Your task to perform on an android device: Open Youtube and go to "Your channel" Image 0: 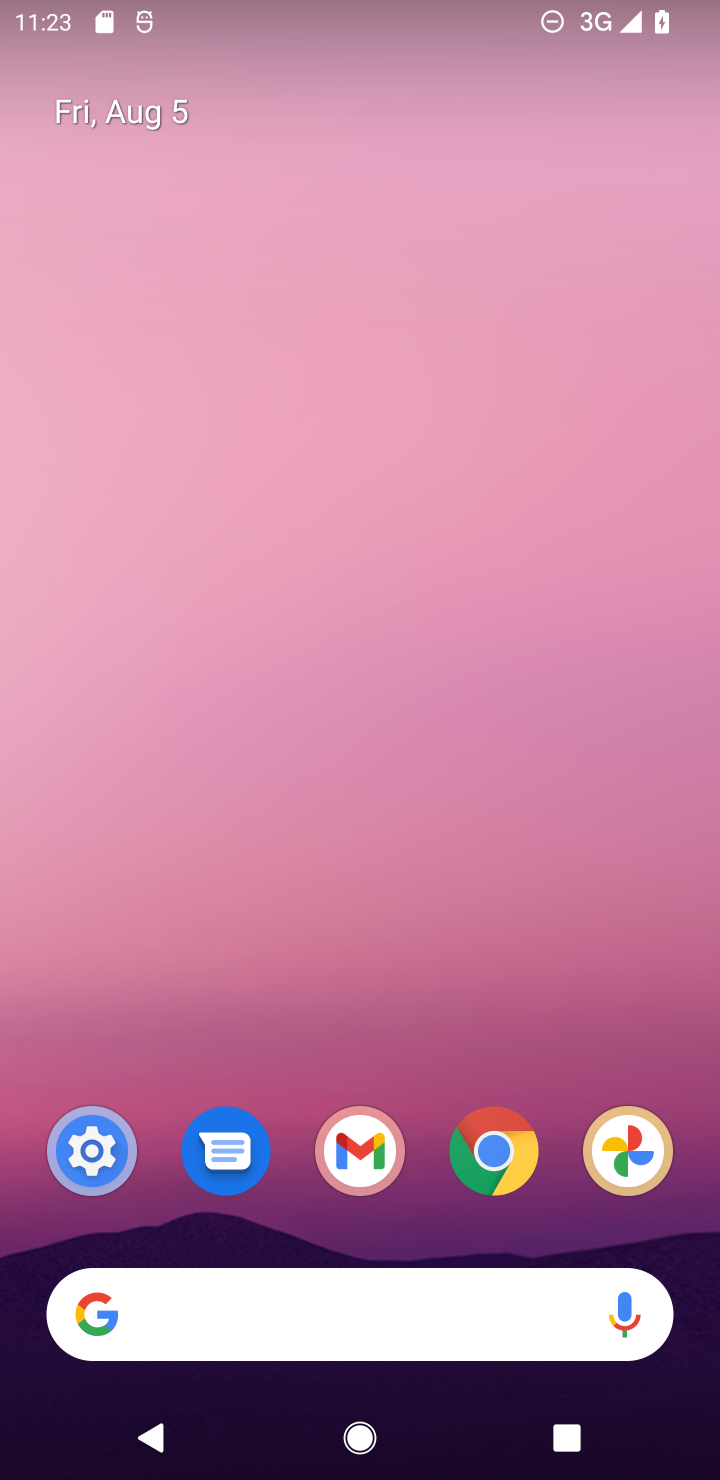
Step 0: click (264, 149)
Your task to perform on an android device: Open Youtube and go to "Your channel" Image 1: 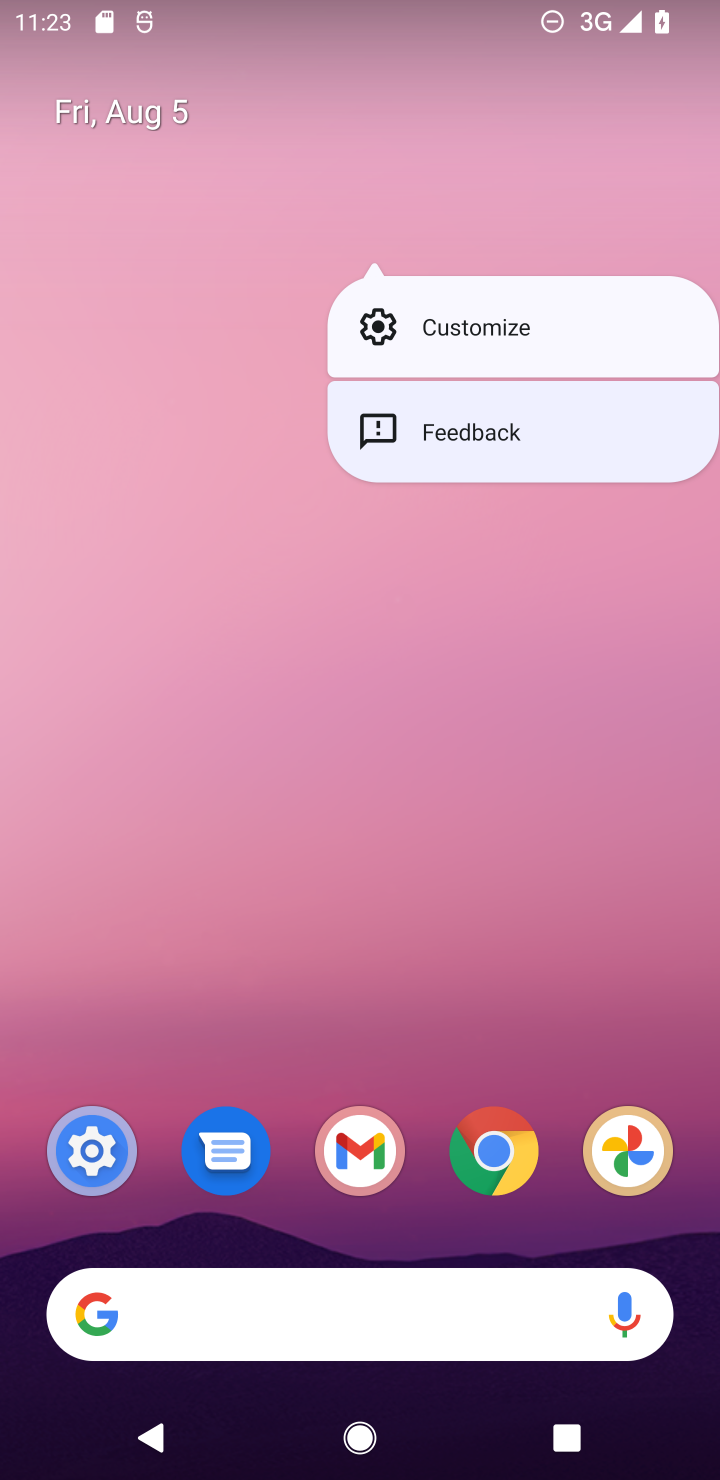
Step 1: click (336, 1227)
Your task to perform on an android device: Open Youtube and go to "Your channel" Image 2: 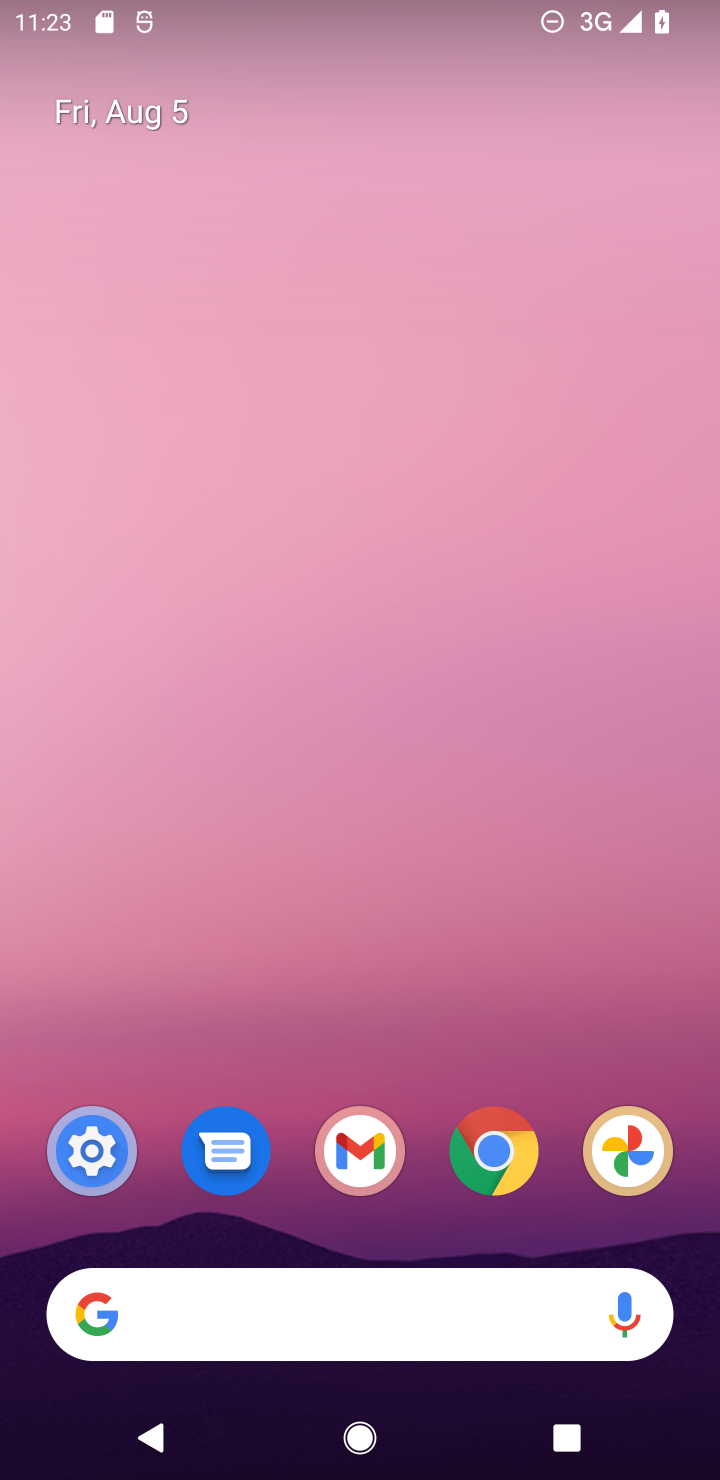
Step 2: drag from (327, 1126) to (272, 132)
Your task to perform on an android device: Open Youtube and go to "Your channel" Image 3: 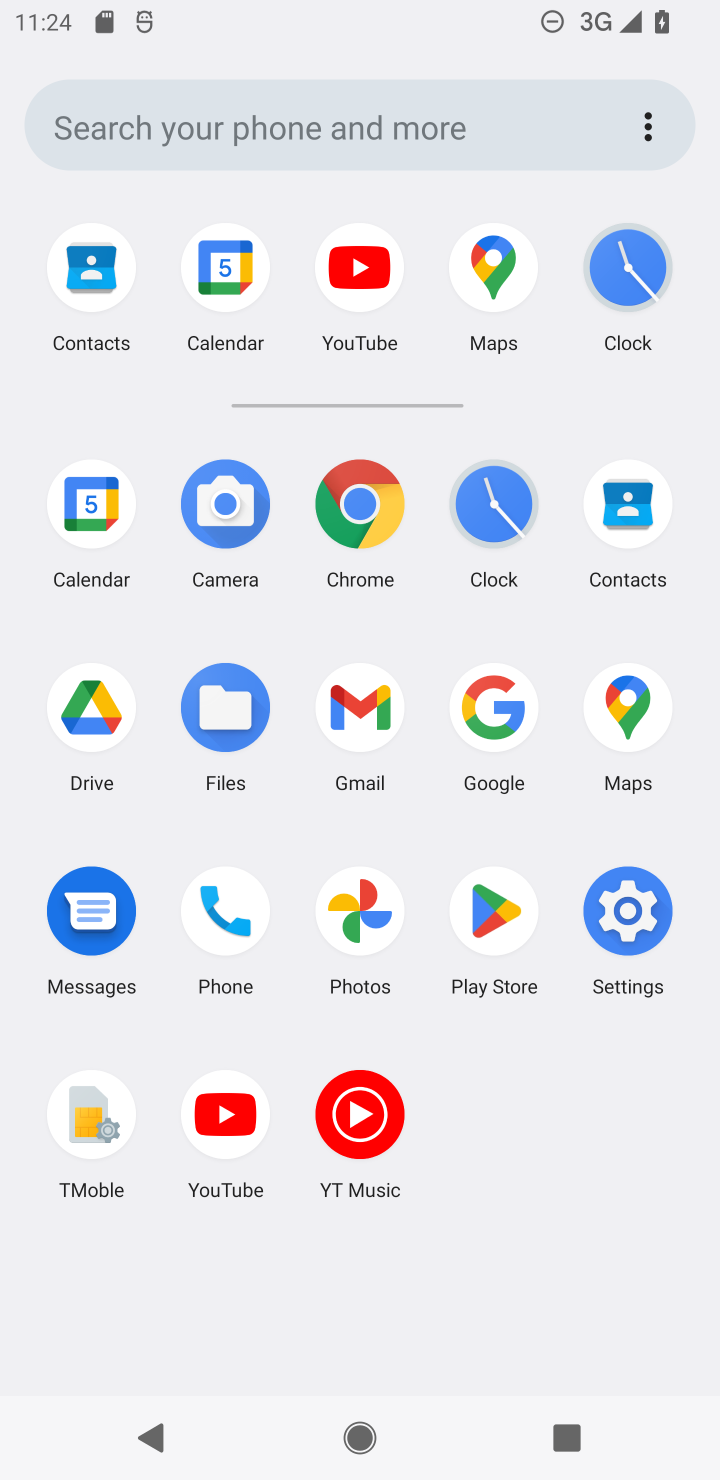
Step 3: click (346, 265)
Your task to perform on an android device: Open Youtube and go to "Your channel" Image 4: 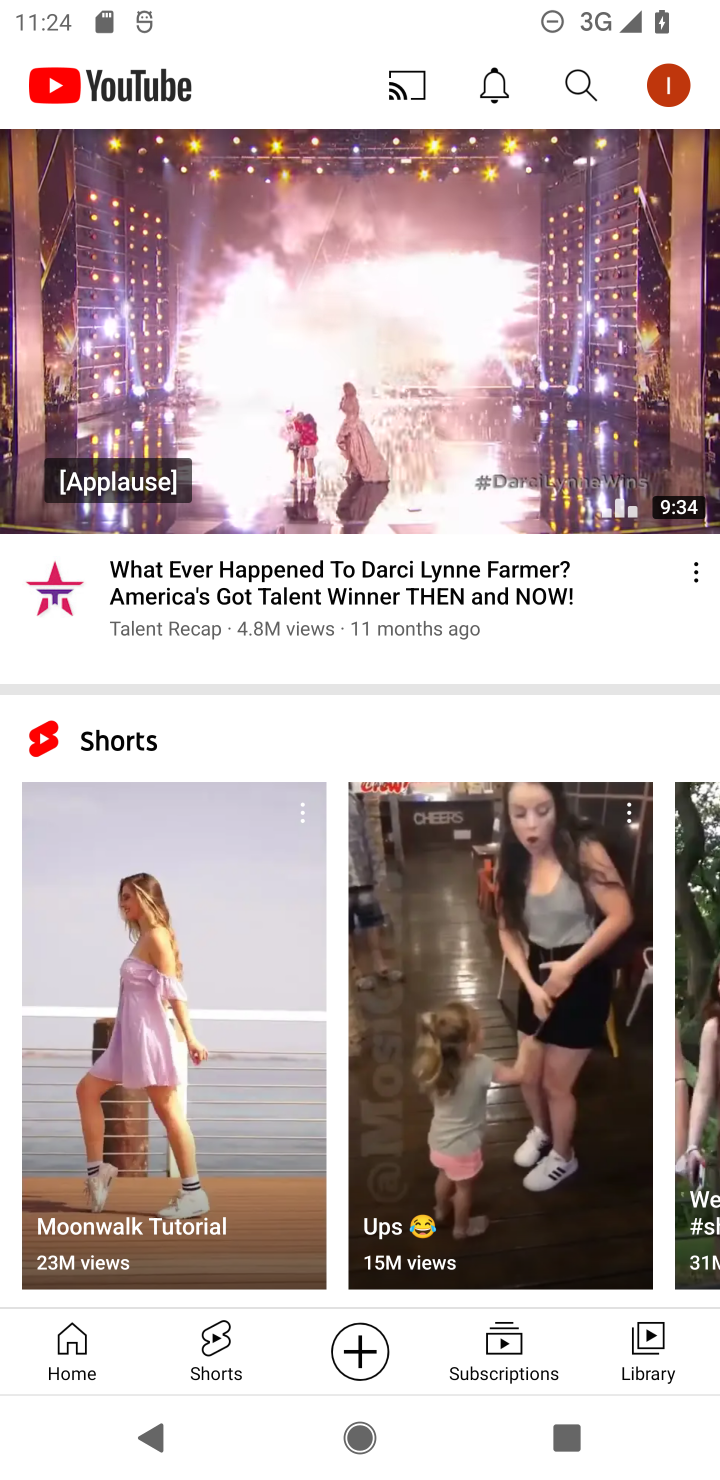
Step 4: click (664, 96)
Your task to perform on an android device: Open Youtube and go to "Your channel" Image 5: 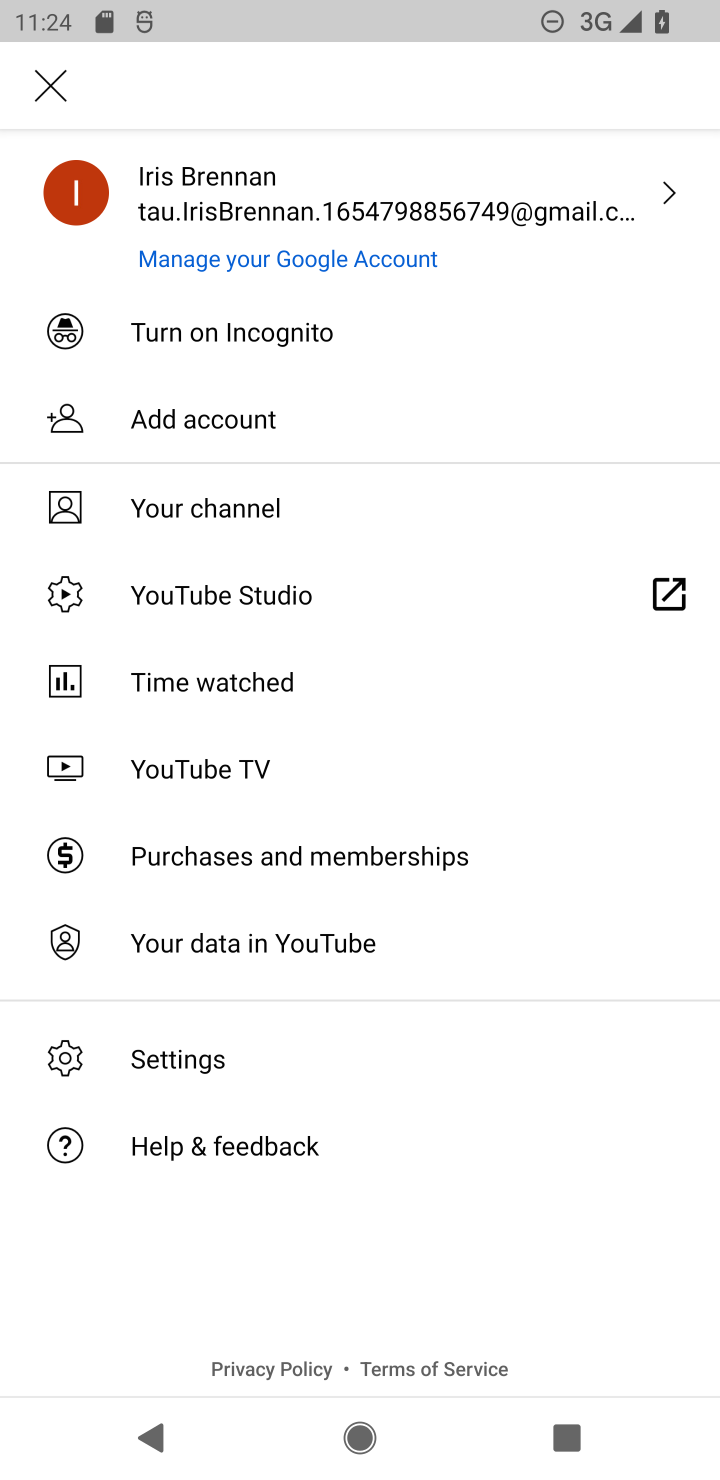
Step 5: click (92, 199)
Your task to perform on an android device: Open Youtube and go to "Your channel" Image 6: 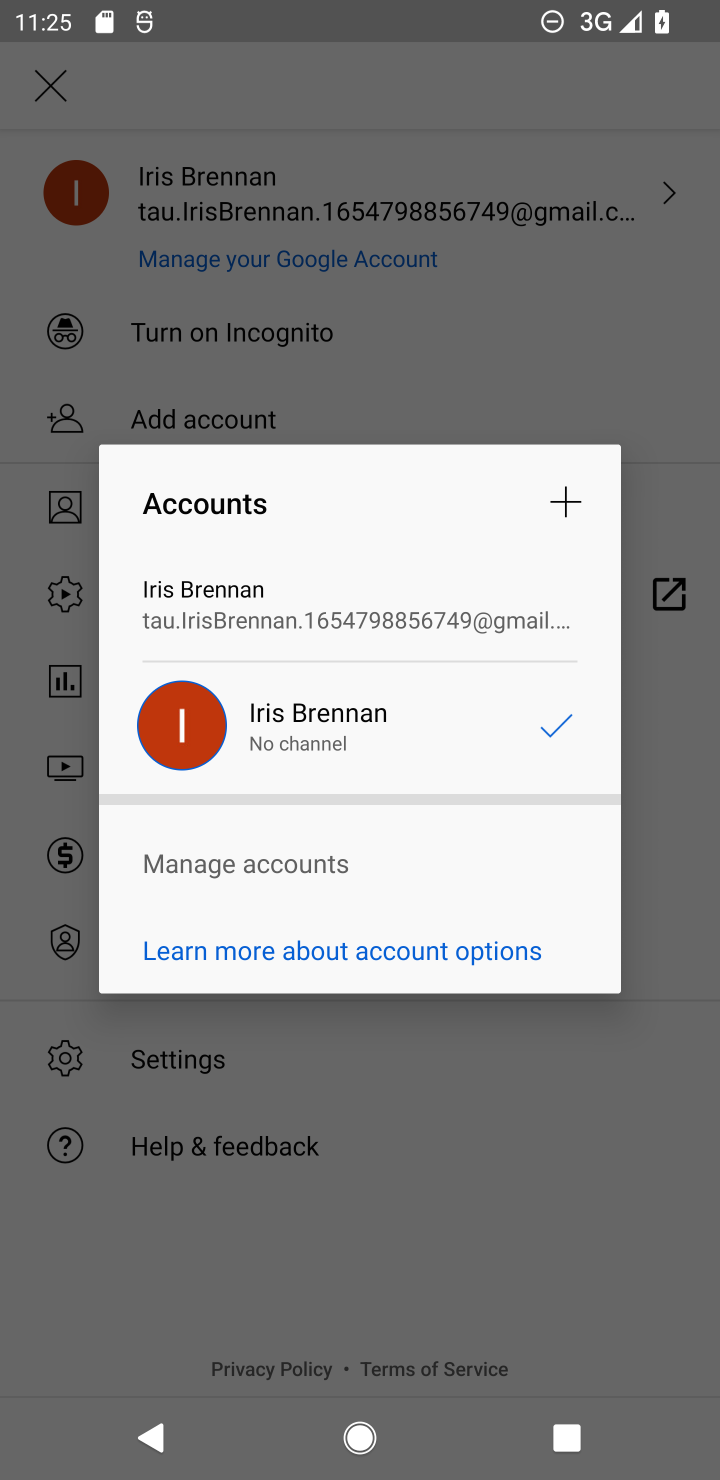
Step 6: task complete